Your task to perform on an android device: open app "Flipkart Online Shopping App" Image 0: 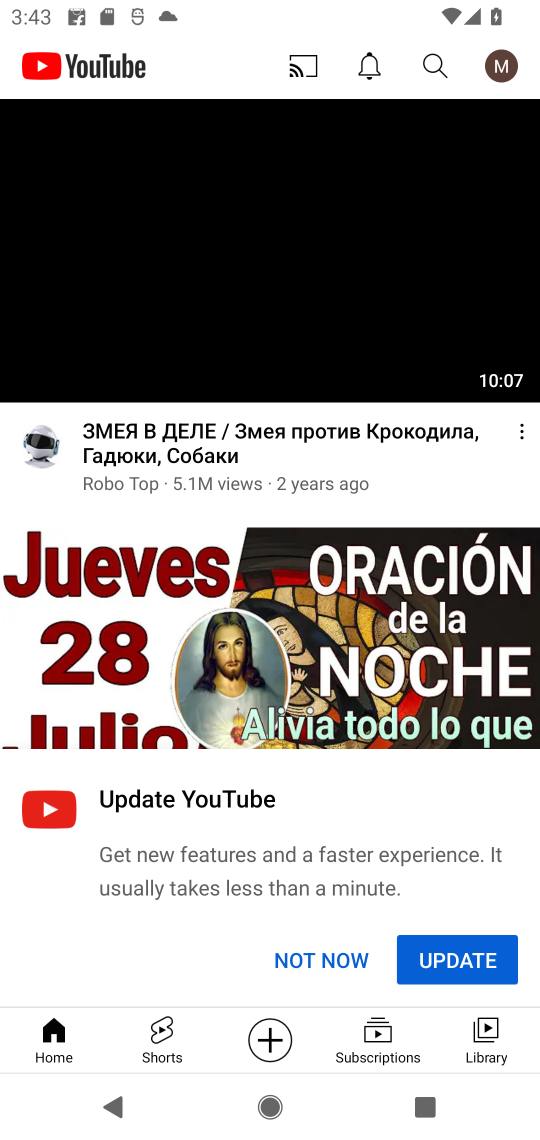
Step 0: press home button
Your task to perform on an android device: open app "Flipkart Online Shopping App" Image 1: 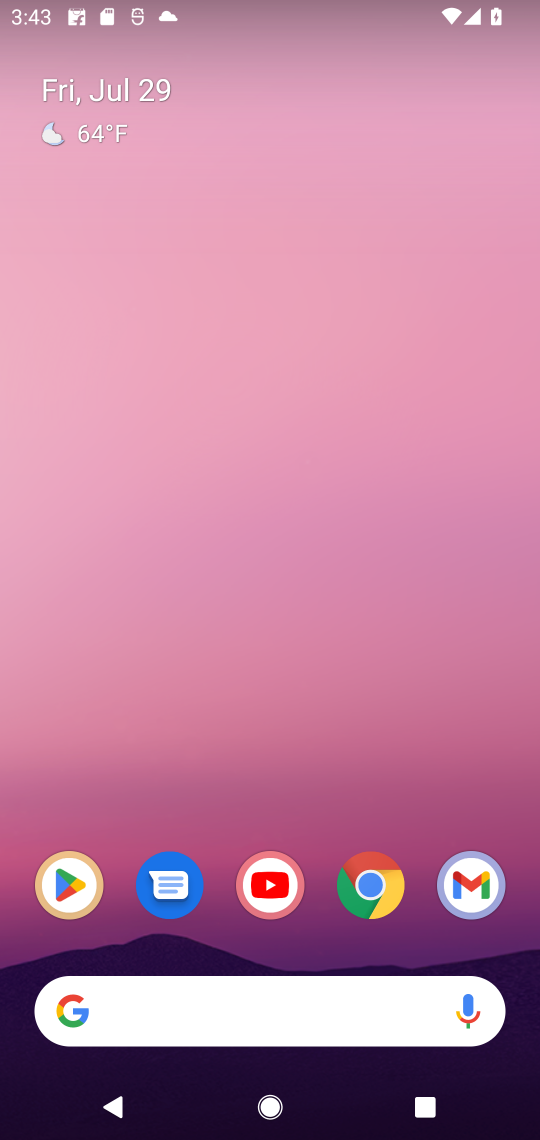
Step 1: click (84, 870)
Your task to perform on an android device: open app "Flipkart Online Shopping App" Image 2: 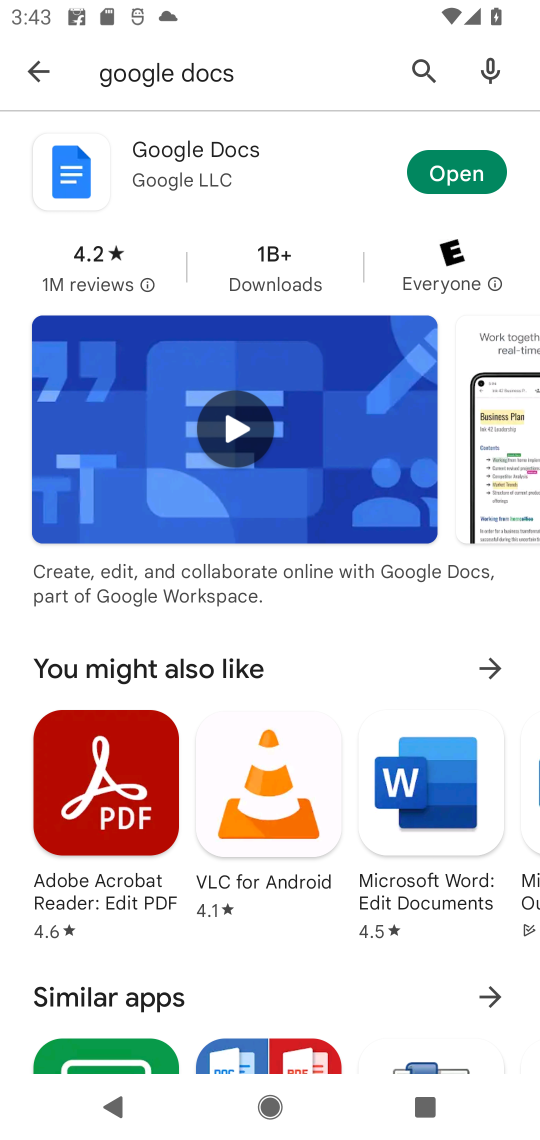
Step 2: click (420, 66)
Your task to perform on an android device: open app "Flipkart Online Shopping App" Image 3: 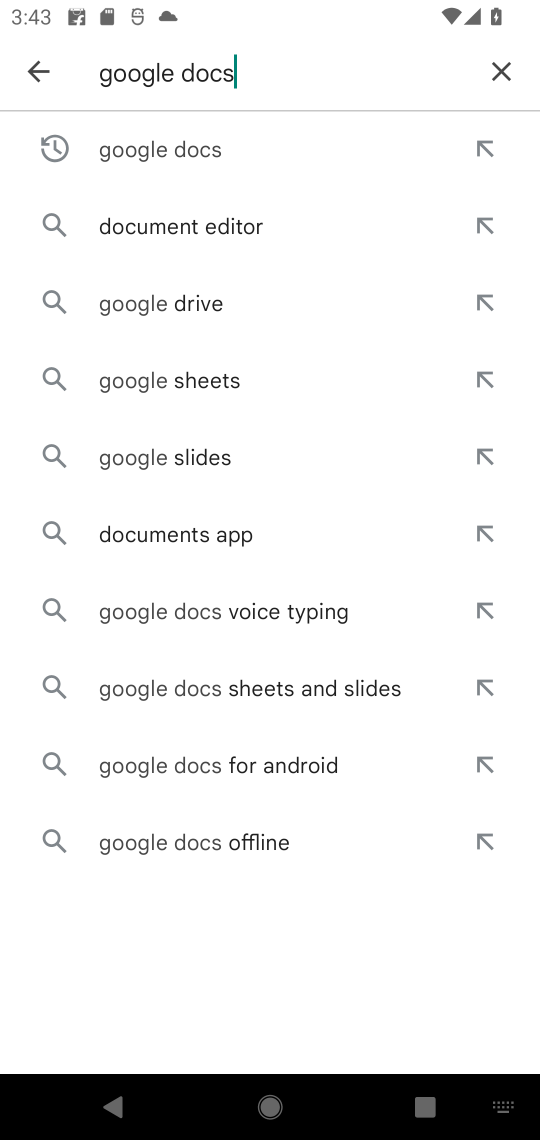
Step 3: click (507, 72)
Your task to perform on an android device: open app "Flipkart Online Shopping App" Image 4: 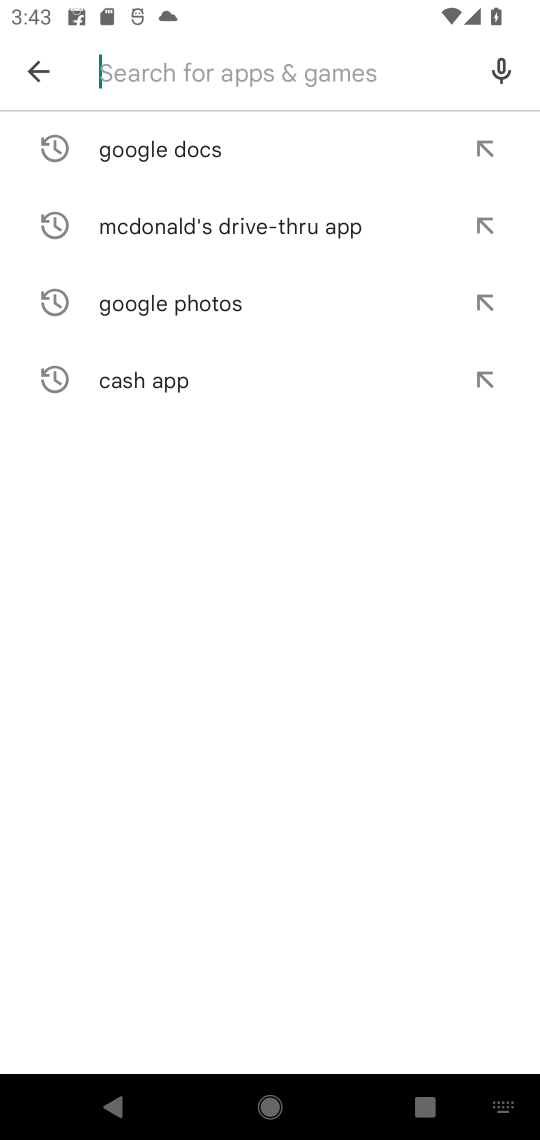
Step 4: type "Flipkart Online Shopping App"
Your task to perform on an android device: open app "Flipkart Online Shopping App" Image 5: 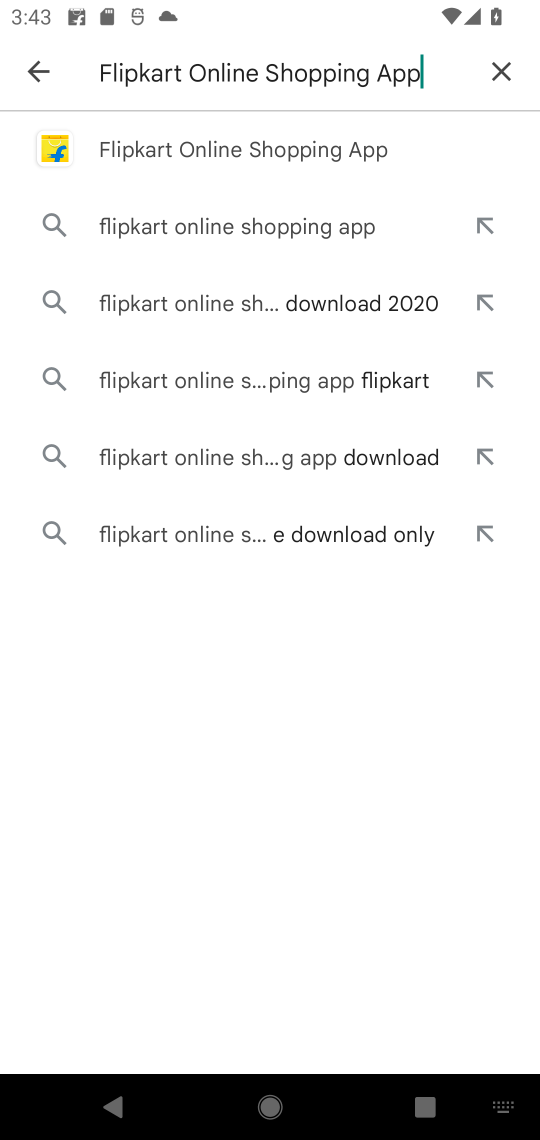
Step 5: click (372, 149)
Your task to perform on an android device: open app "Flipkart Online Shopping App" Image 6: 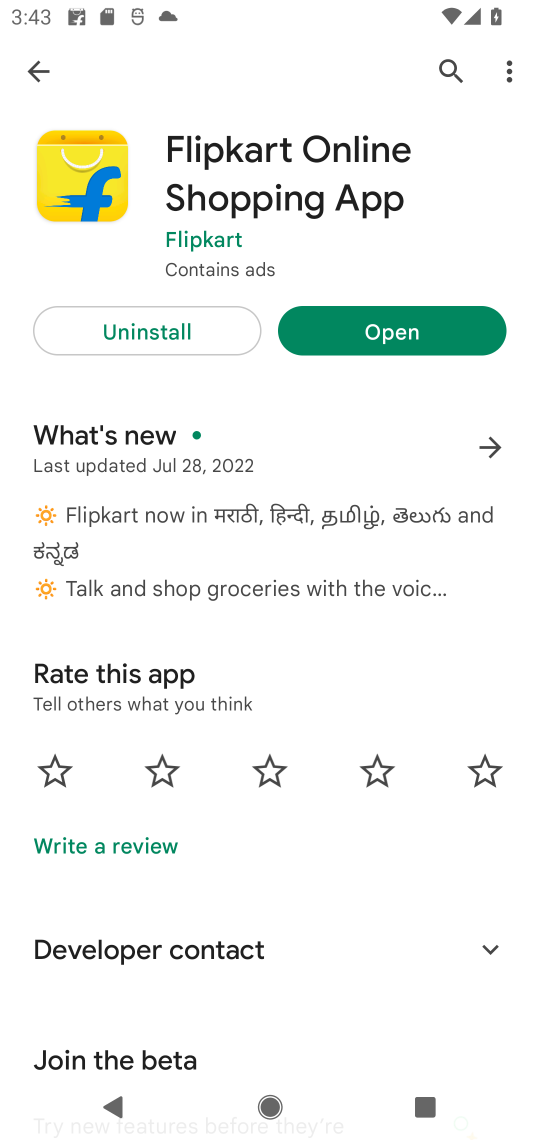
Step 6: click (383, 326)
Your task to perform on an android device: open app "Flipkart Online Shopping App" Image 7: 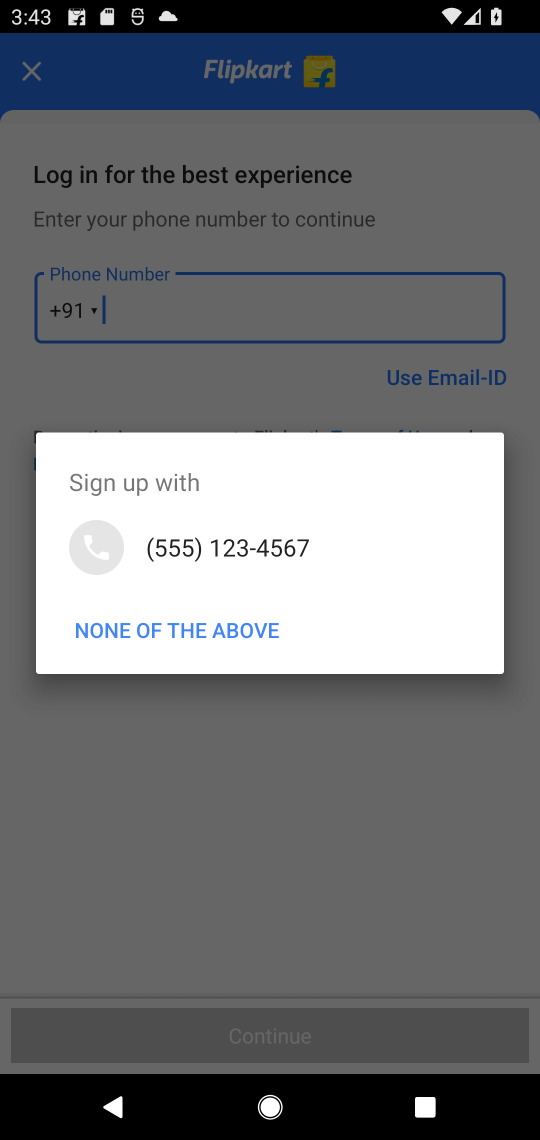
Step 7: task complete